Your task to perform on an android device: When is my next appointment? Image 0: 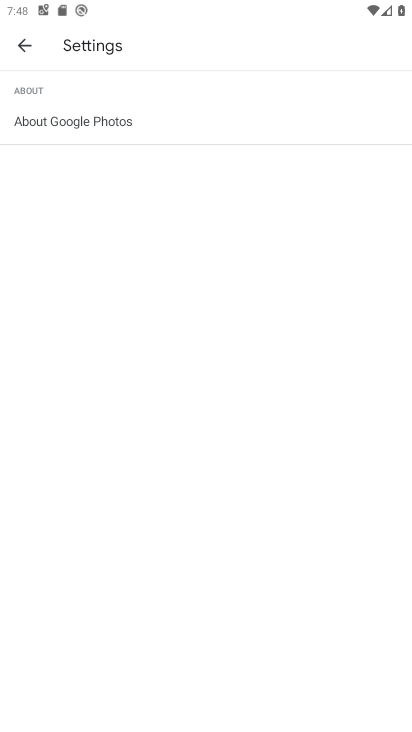
Step 0: press home button
Your task to perform on an android device: When is my next appointment? Image 1: 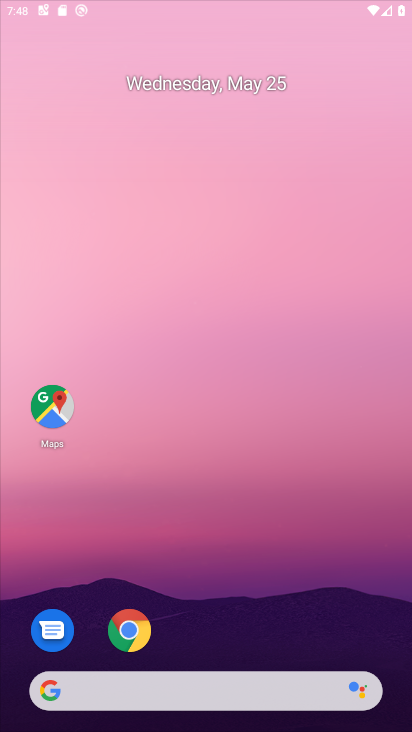
Step 1: drag from (257, 609) to (268, 111)
Your task to perform on an android device: When is my next appointment? Image 2: 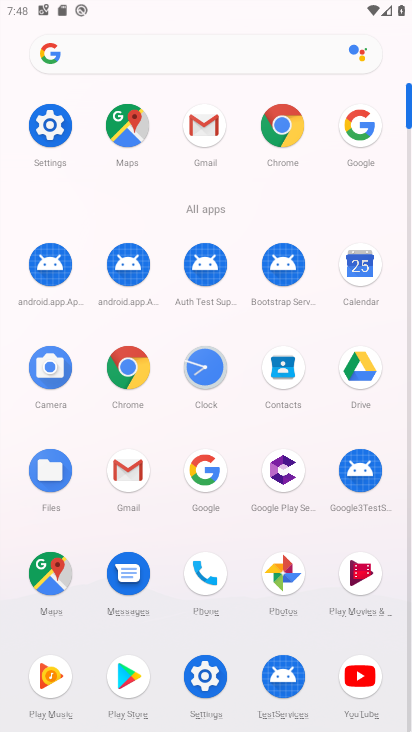
Step 2: click (361, 265)
Your task to perform on an android device: When is my next appointment? Image 3: 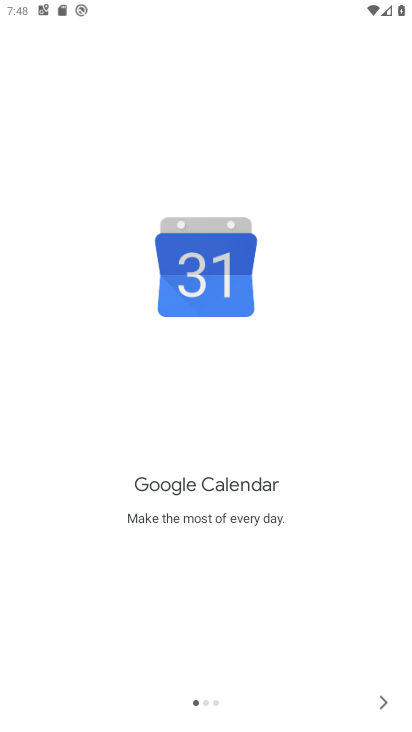
Step 3: click (380, 706)
Your task to perform on an android device: When is my next appointment? Image 4: 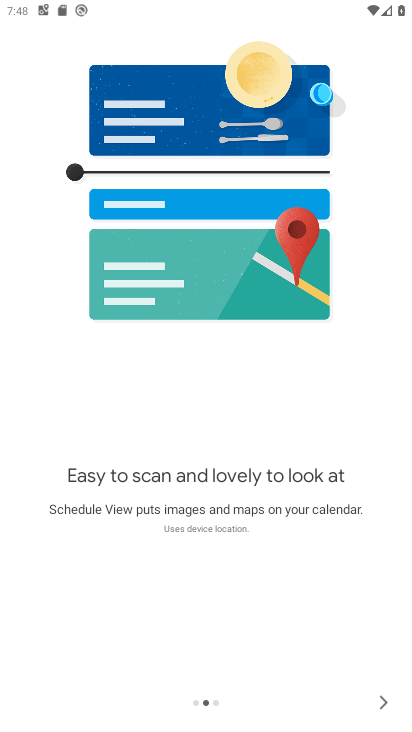
Step 4: click (380, 708)
Your task to perform on an android device: When is my next appointment? Image 5: 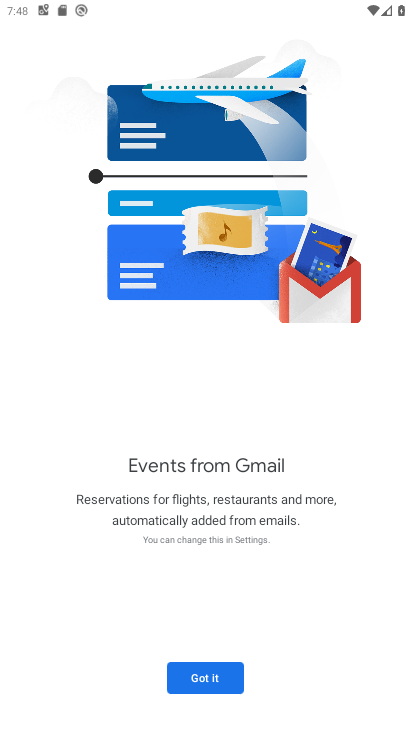
Step 5: click (190, 676)
Your task to perform on an android device: When is my next appointment? Image 6: 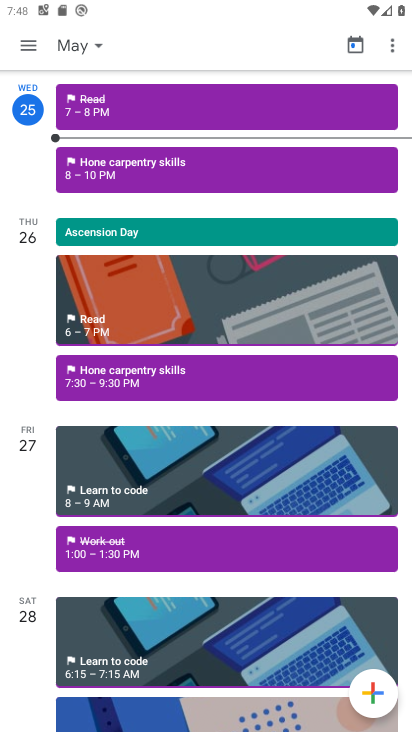
Step 6: click (75, 47)
Your task to perform on an android device: When is my next appointment? Image 7: 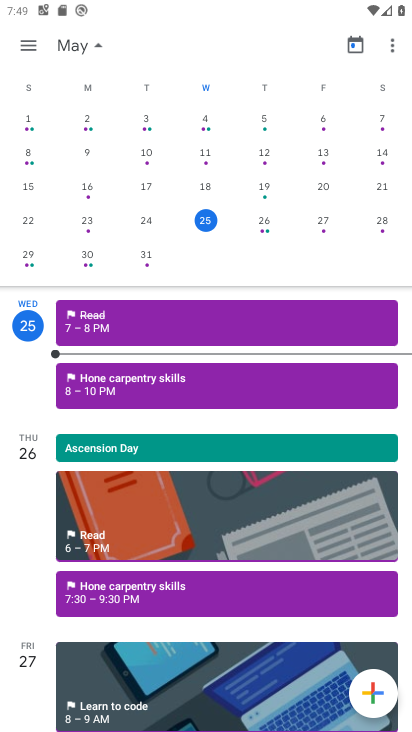
Step 7: click (272, 210)
Your task to perform on an android device: When is my next appointment? Image 8: 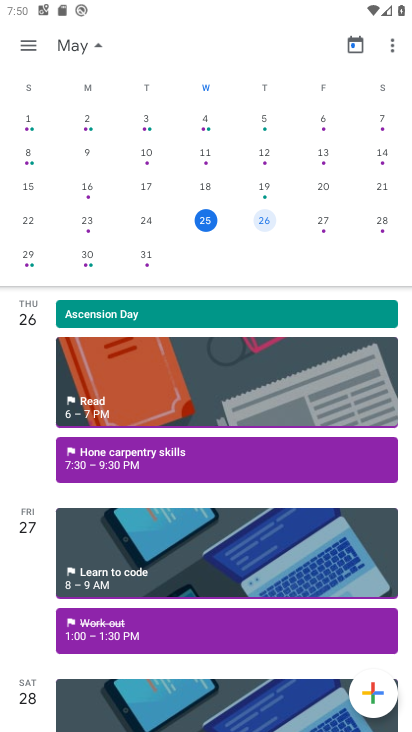
Step 8: task complete